Your task to perform on an android device: Show me recent news Image 0: 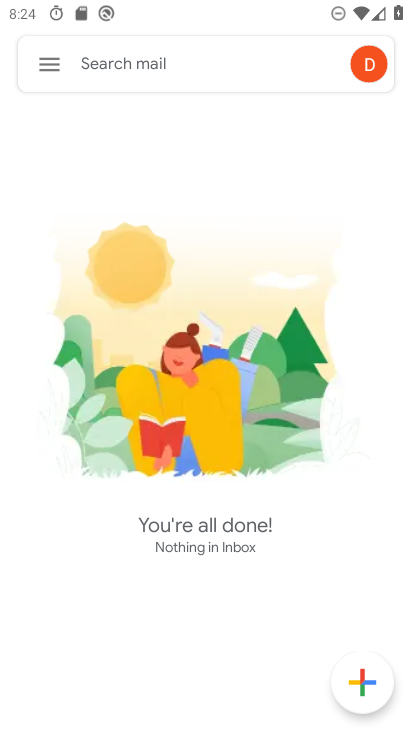
Step 0: press home button
Your task to perform on an android device: Show me recent news Image 1: 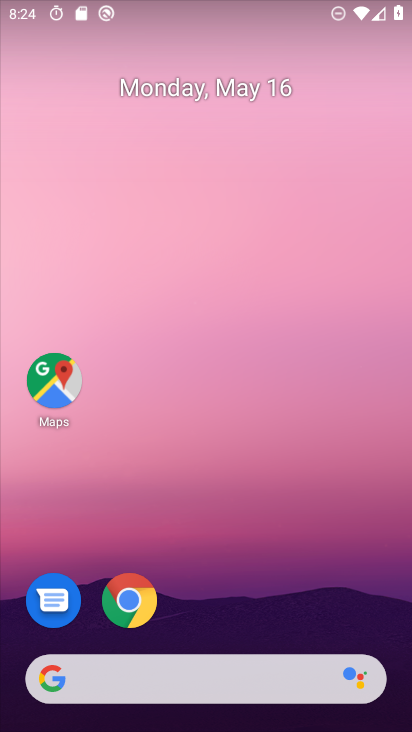
Step 1: click (59, 684)
Your task to perform on an android device: Show me recent news Image 2: 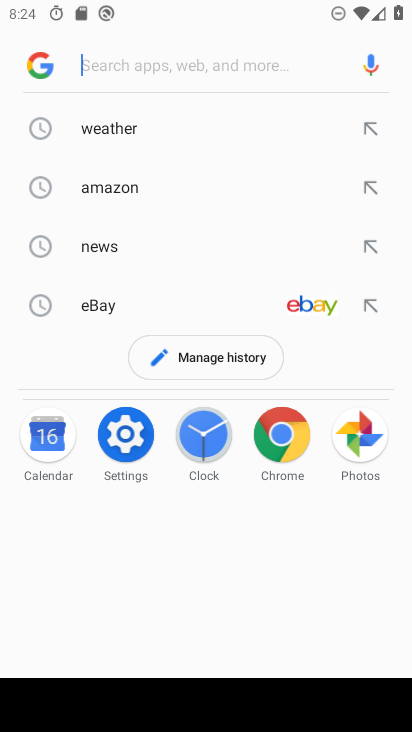
Step 2: click (105, 245)
Your task to perform on an android device: Show me recent news Image 3: 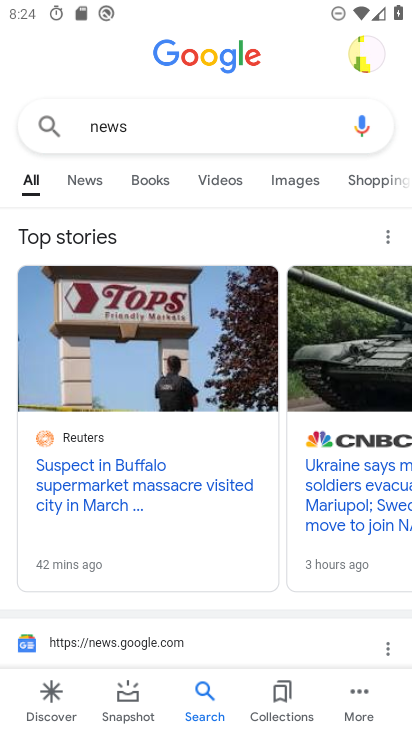
Step 3: click (78, 168)
Your task to perform on an android device: Show me recent news Image 4: 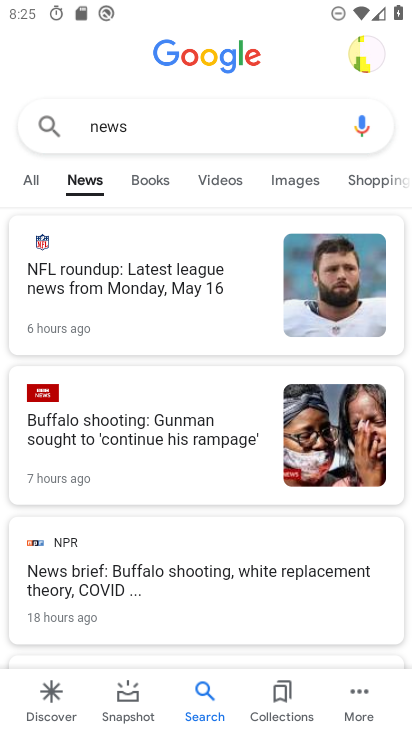
Step 4: task complete